Your task to perform on an android device: Clear the shopping cart on bestbuy.com. Search for macbook pro 13 inch on bestbuy.com, select the first entry, add it to the cart, then select checkout. Image 0: 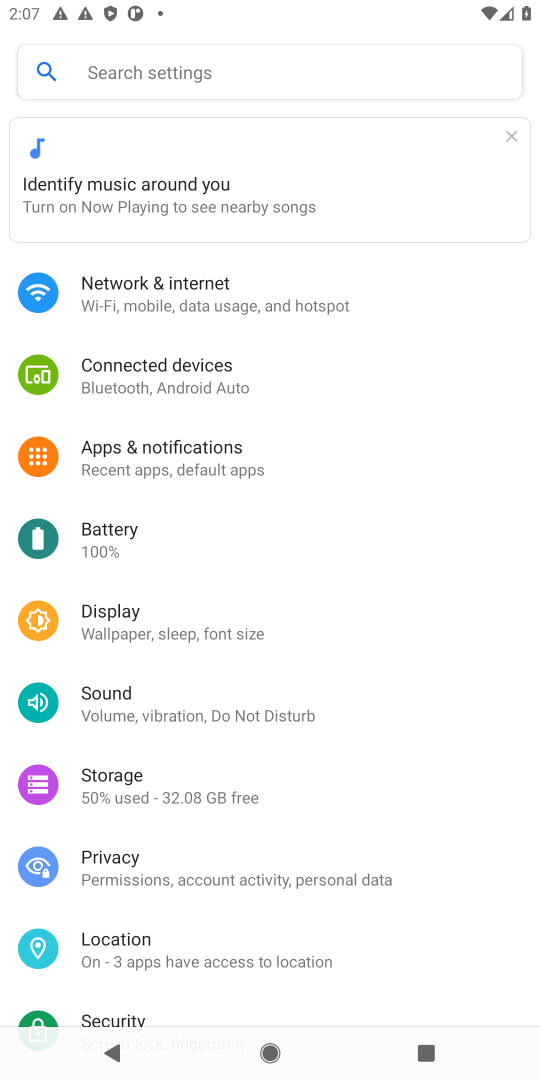
Step 0: press home button
Your task to perform on an android device: Clear the shopping cart on bestbuy.com. Search for macbook pro 13 inch on bestbuy.com, select the first entry, add it to the cart, then select checkout. Image 1: 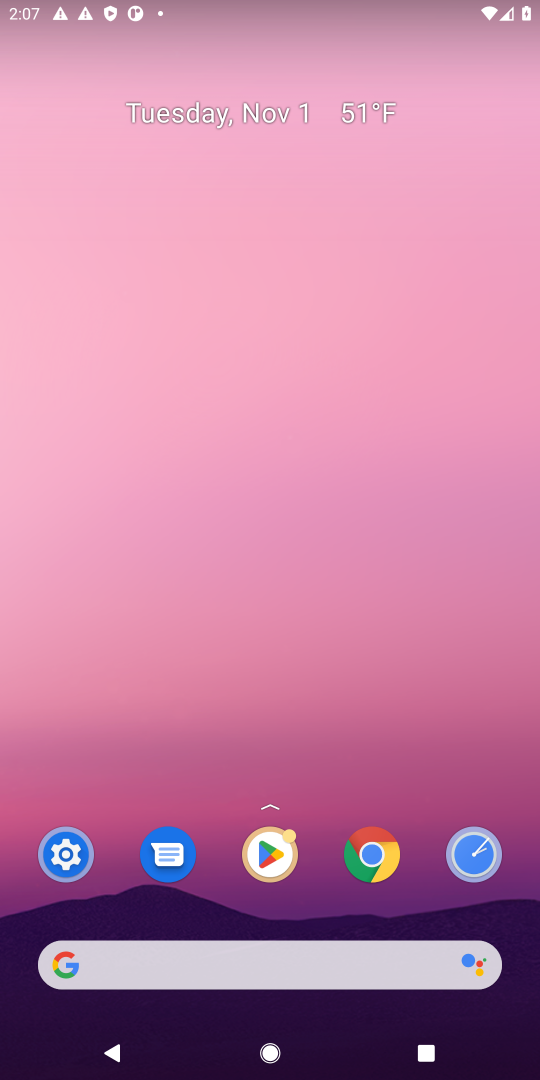
Step 1: click (208, 950)
Your task to perform on an android device: Clear the shopping cart on bestbuy.com. Search for macbook pro 13 inch on bestbuy.com, select the first entry, add it to the cart, then select checkout. Image 2: 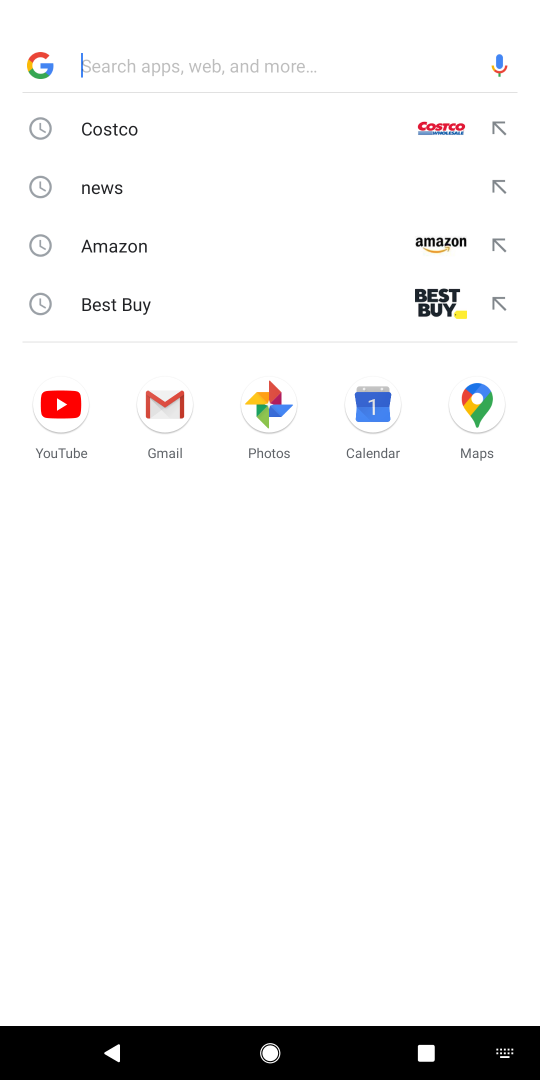
Step 2: click (105, 299)
Your task to perform on an android device: Clear the shopping cart on bestbuy.com. Search for macbook pro 13 inch on bestbuy.com, select the first entry, add it to the cart, then select checkout. Image 3: 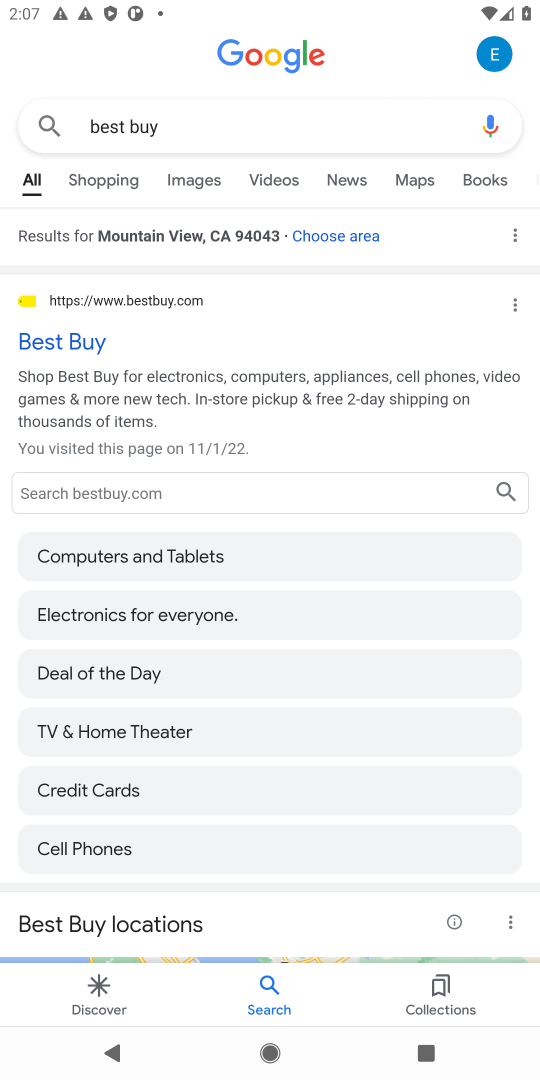
Step 3: click (65, 346)
Your task to perform on an android device: Clear the shopping cart on bestbuy.com. Search for macbook pro 13 inch on bestbuy.com, select the first entry, add it to the cart, then select checkout. Image 4: 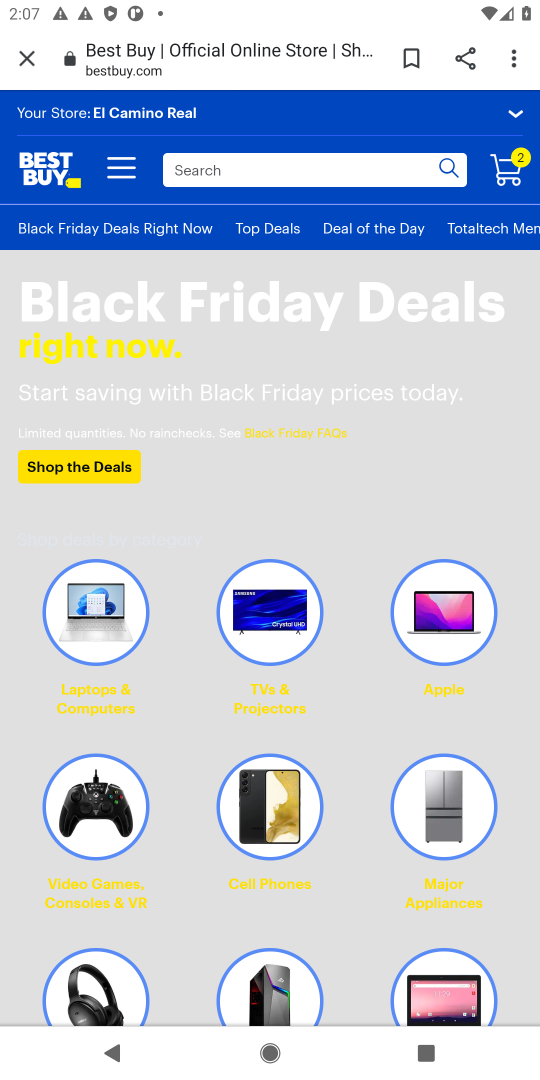
Step 4: click (254, 172)
Your task to perform on an android device: Clear the shopping cart on bestbuy.com. Search for macbook pro 13 inch on bestbuy.com, select the first entry, add it to the cart, then select checkout. Image 5: 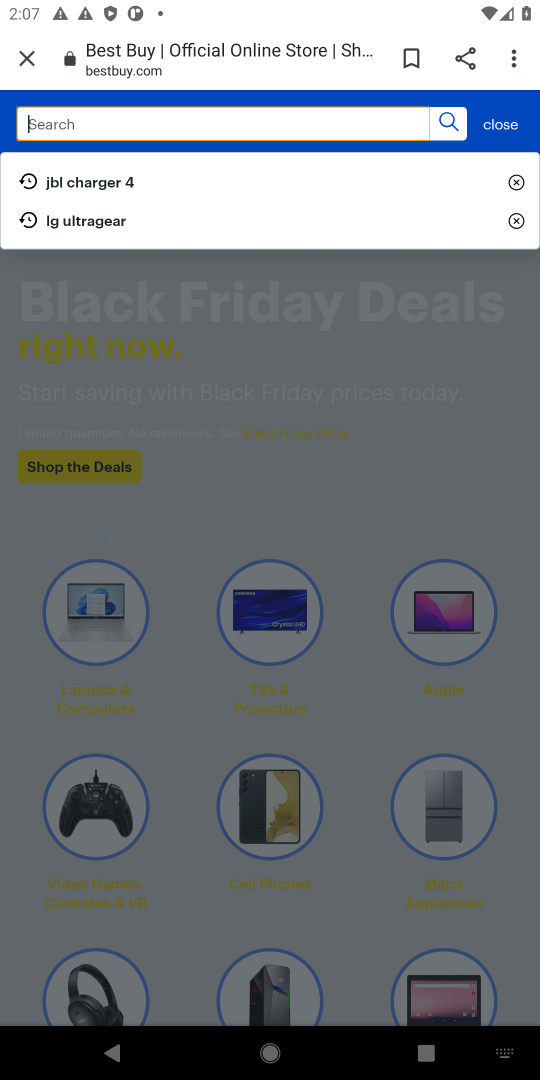
Step 5: type "macbook pro 13 inch"
Your task to perform on an android device: Clear the shopping cart on bestbuy.com. Search for macbook pro 13 inch on bestbuy.com, select the first entry, add it to the cart, then select checkout. Image 6: 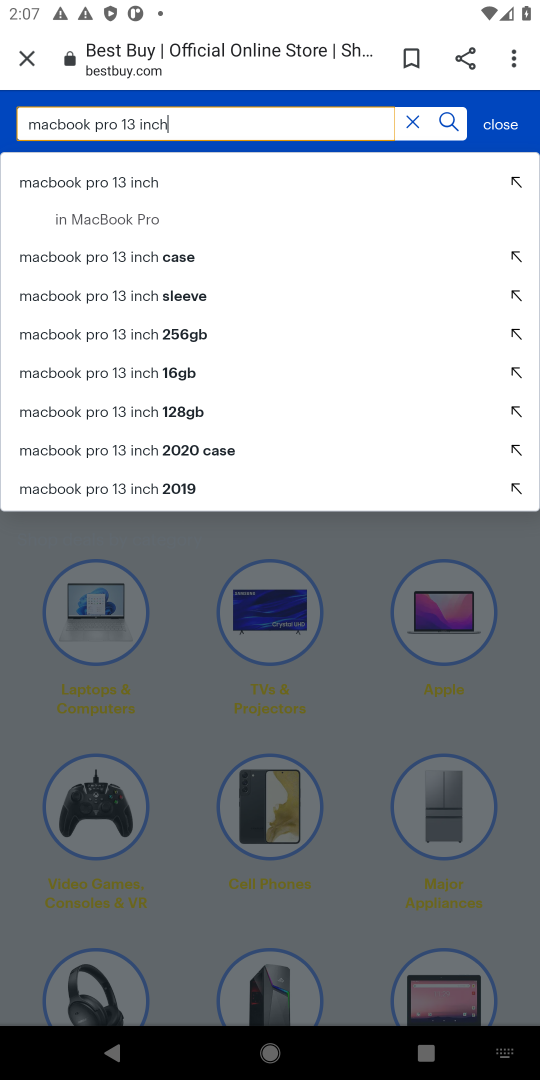
Step 6: click (121, 174)
Your task to perform on an android device: Clear the shopping cart on bestbuy.com. Search for macbook pro 13 inch on bestbuy.com, select the first entry, add it to the cart, then select checkout. Image 7: 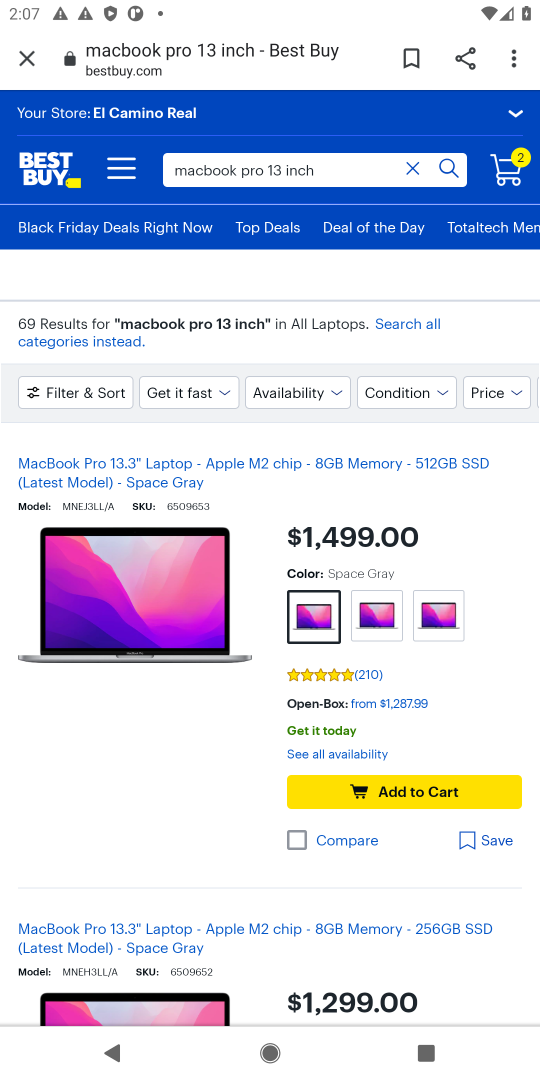
Step 7: click (377, 786)
Your task to perform on an android device: Clear the shopping cart on bestbuy.com. Search for macbook pro 13 inch on bestbuy.com, select the first entry, add it to the cart, then select checkout. Image 8: 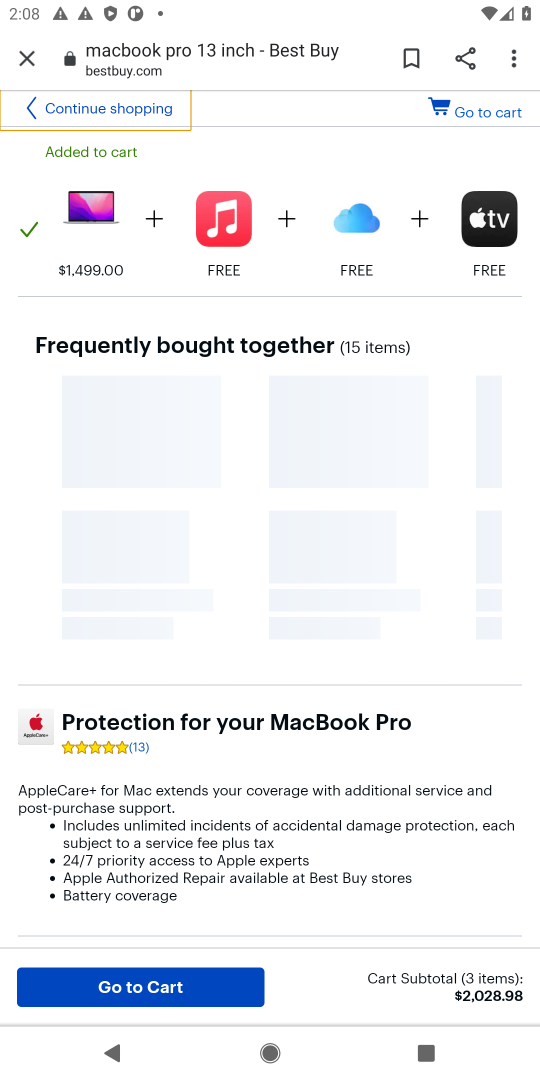
Step 8: click (165, 986)
Your task to perform on an android device: Clear the shopping cart on bestbuy.com. Search for macbook pro 13 inch on bestbuy.com, select the first entry, add it to the cart, then select checkout. Image 9: 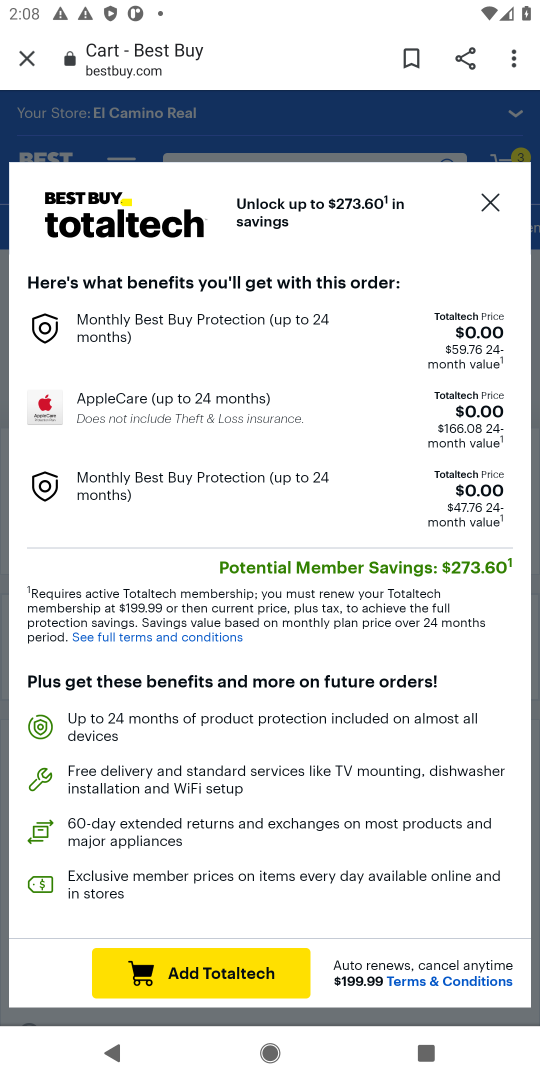
Step 9: click (494, 192)
Your task to perform on an android device: Clear the shopping cart on bestbuy.com. Search for macbook pro 13 inch on bestbuy.com, select the first entry, add it to the cart, then select checkout. Image 10: 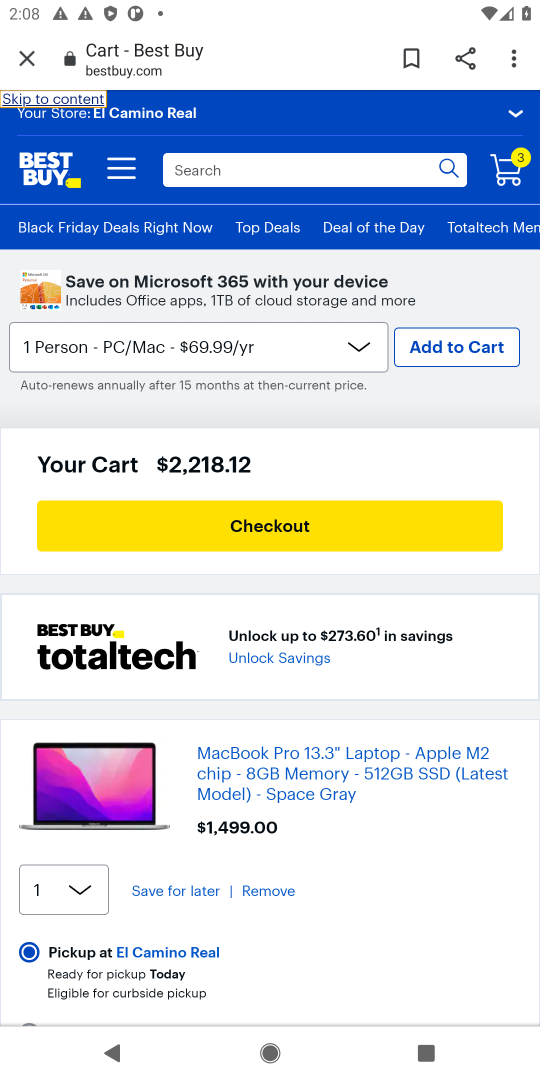
Step 10: click (281, 519)
Your task to perform on an android device: Clear the shopping cart on bestbuy.com. Search for macbook pro 13 inch on bestbuy.com, select the first entry, add it to the cart, then select checkout. Image 11: 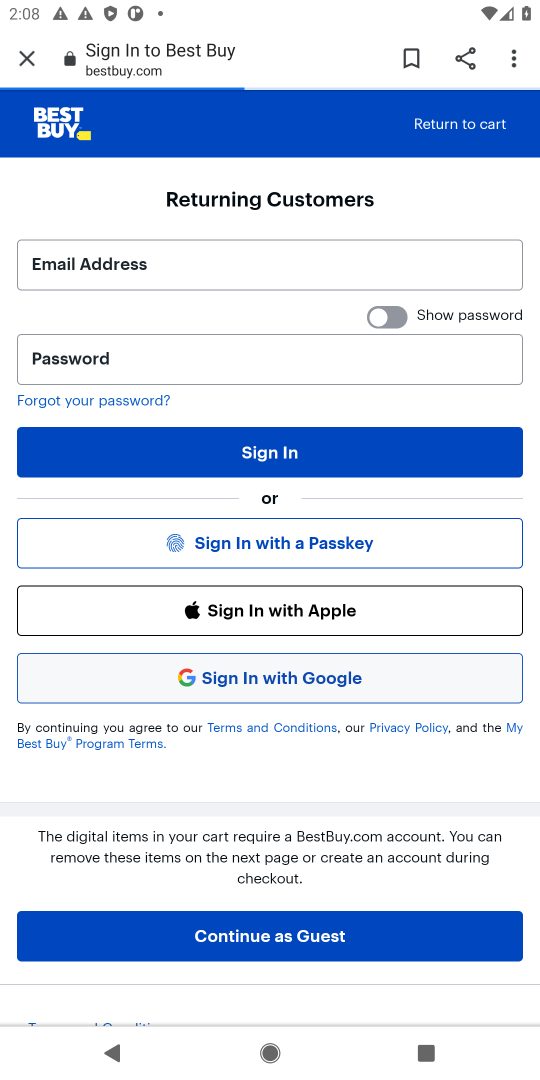
Step 11: task complete